Your task to perform on an android device: Go to eBay Image 0: 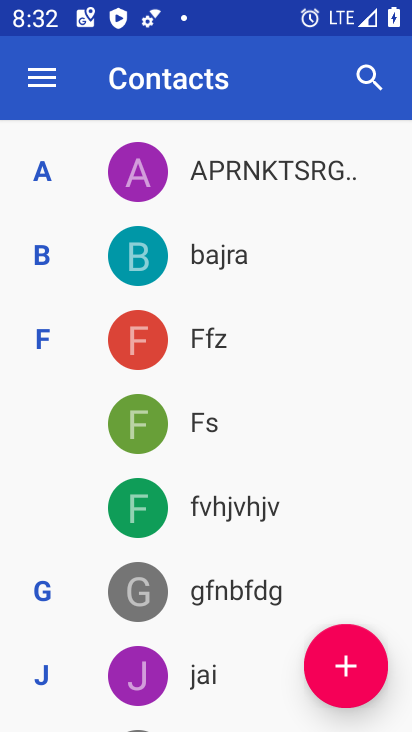
Step 0: press home button
Your task to perform on an android device: Go to eBay Image 1: 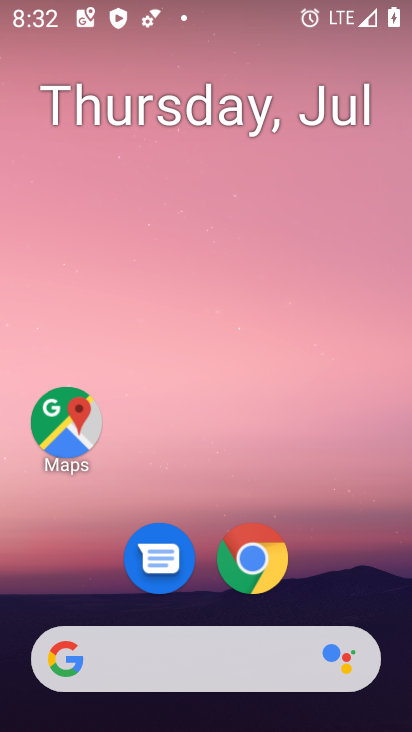
Step 1: drag from (249, 605) to (260, 235)
Your task to perform on an android device: Go to eBay Image 2: 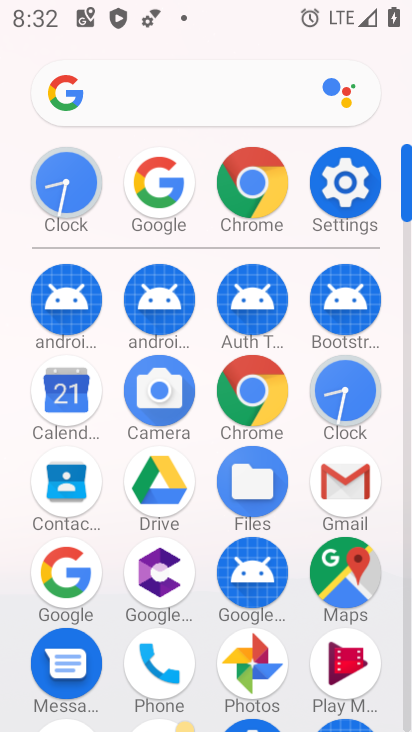
Step 2: click (264, 209)
Your task to perform on an android device: Go to eBay Image 3: 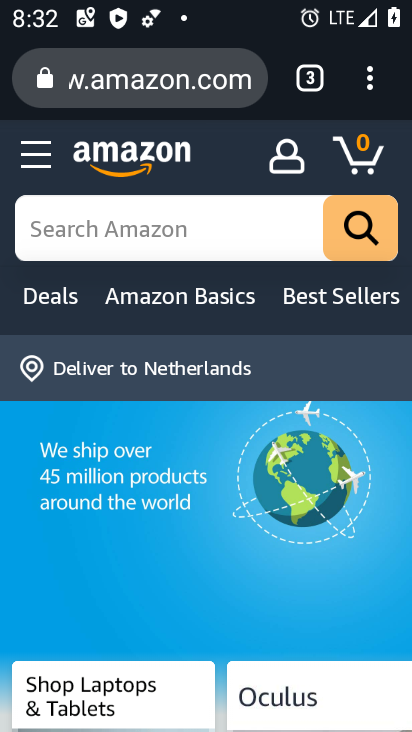
Step 3: drag from (215, 101) to (222, 182)
Your task to perform on an android device: Go to eBay Image 4: 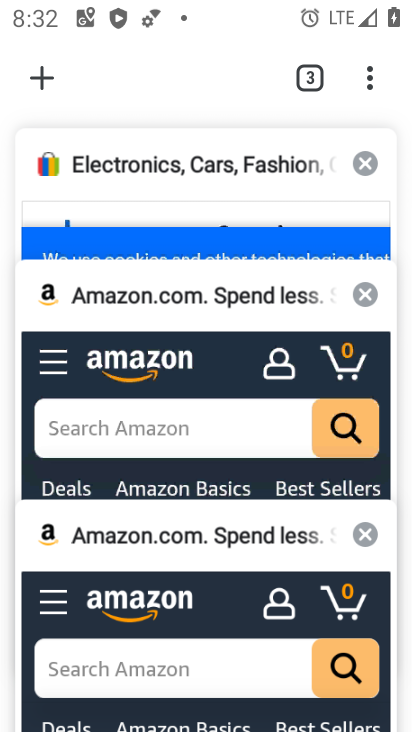
Step 4: click (219, 181)
Your task to perform on an android device: Go to eBay Image 5: 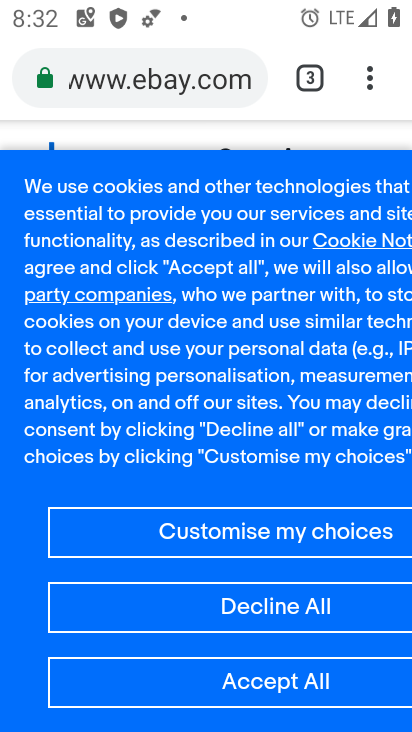
Step 5: task complete